Your task to perform on an android device: Clear all items from cart on target. Image 0: 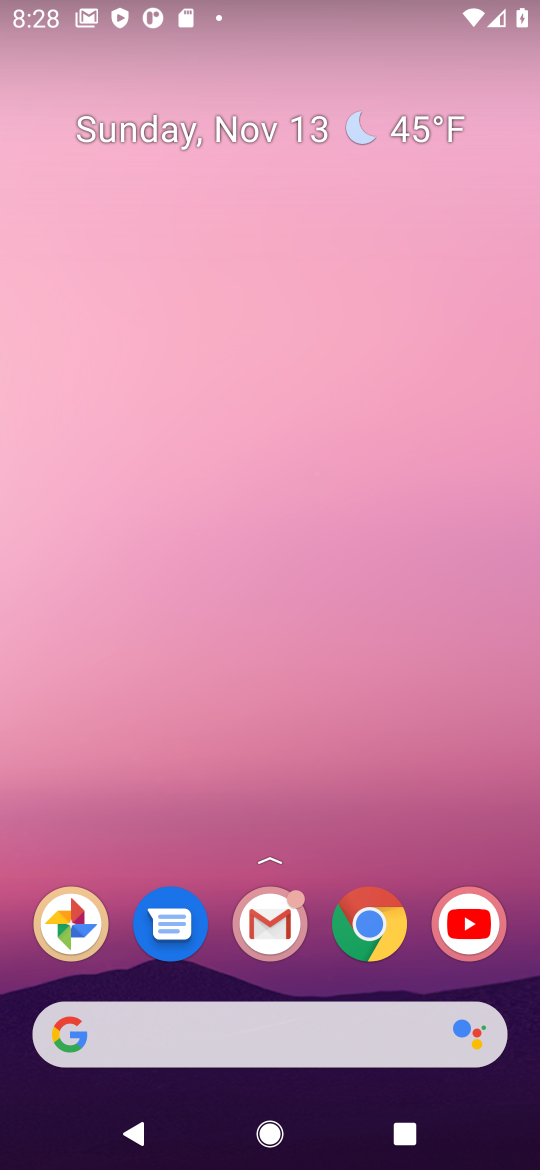
Step 0: click (371, 937)
Your task to perform on an android device: Clear all items from cart on target. Image 1: 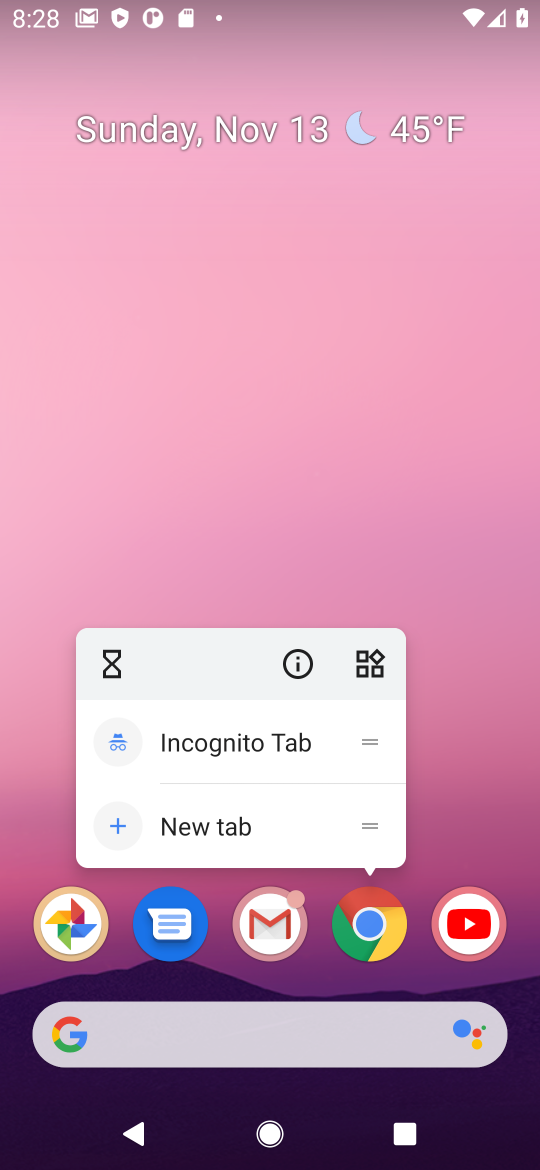
Step 1: click (384, 934)
Your task to perform on an android device: Clear all items from cart on target. Image 2: 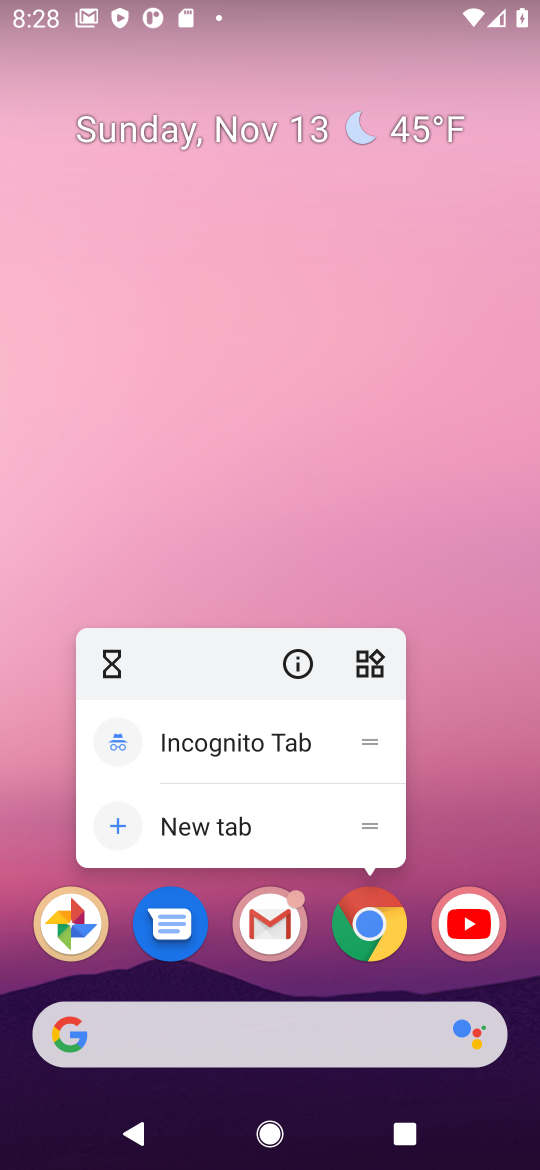
Step 2: click (369, 918)
Your task to perform on an android device: Clear all items from cart on target. Image 3: 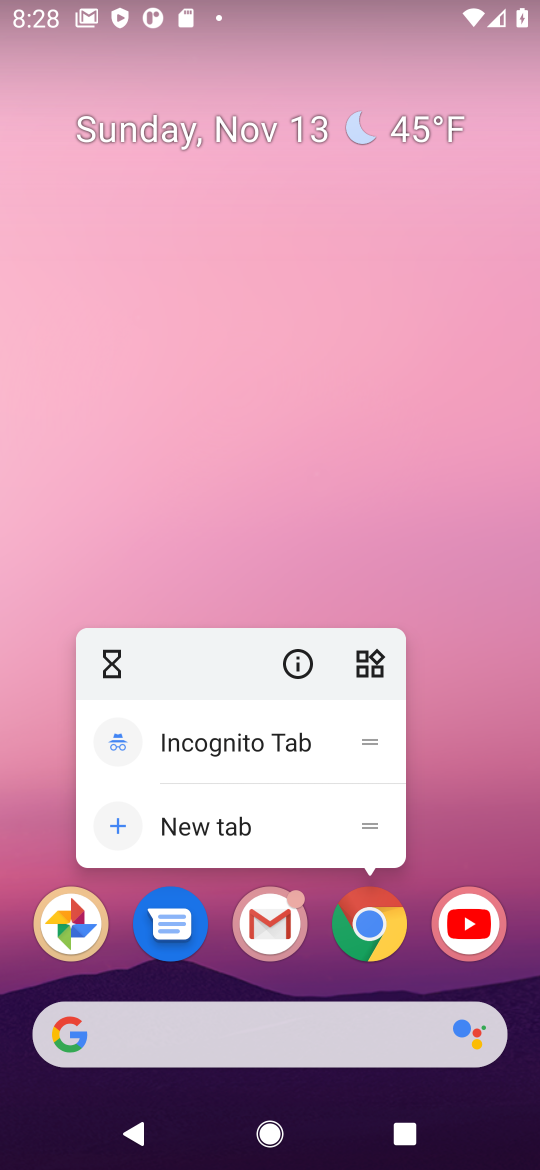
Step 3: click (369, 922)
Your task to perform on an android device: Clear all items from cart on target. Image 4: 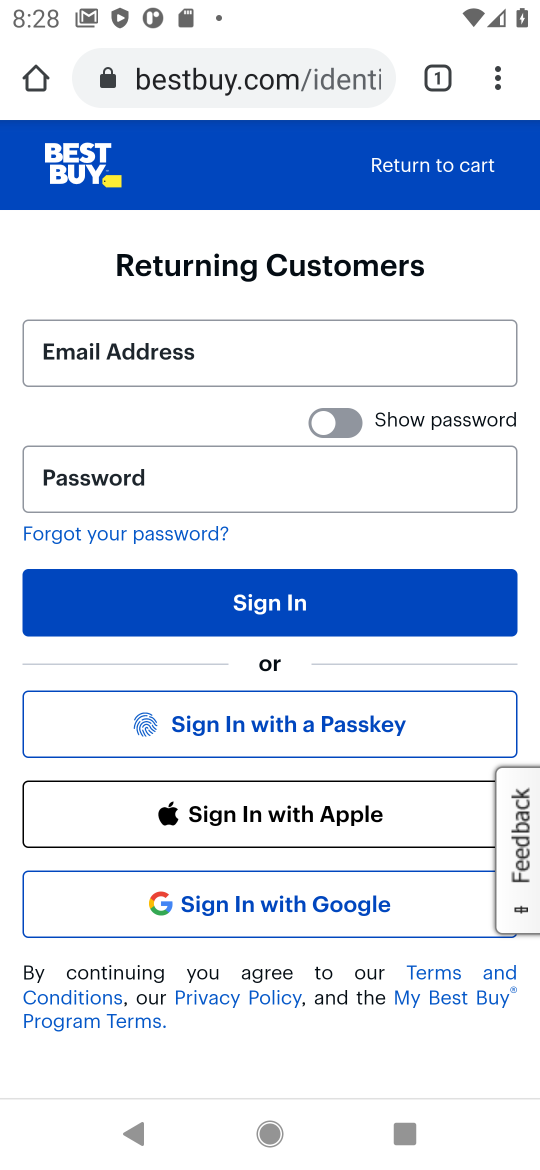
Step 4: click (329, 70)
Your task to perform on an android device: Clear all items from cart on target. Image 5: 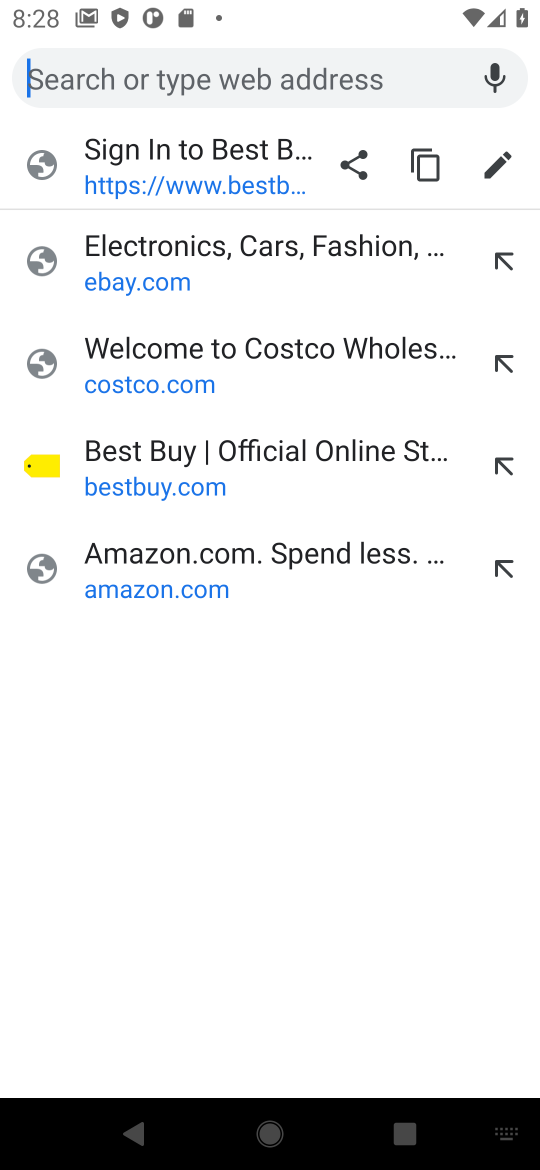
Step 5: type " target"
Your task to perform on an android device: Clear all items from cart on target. Image 6: 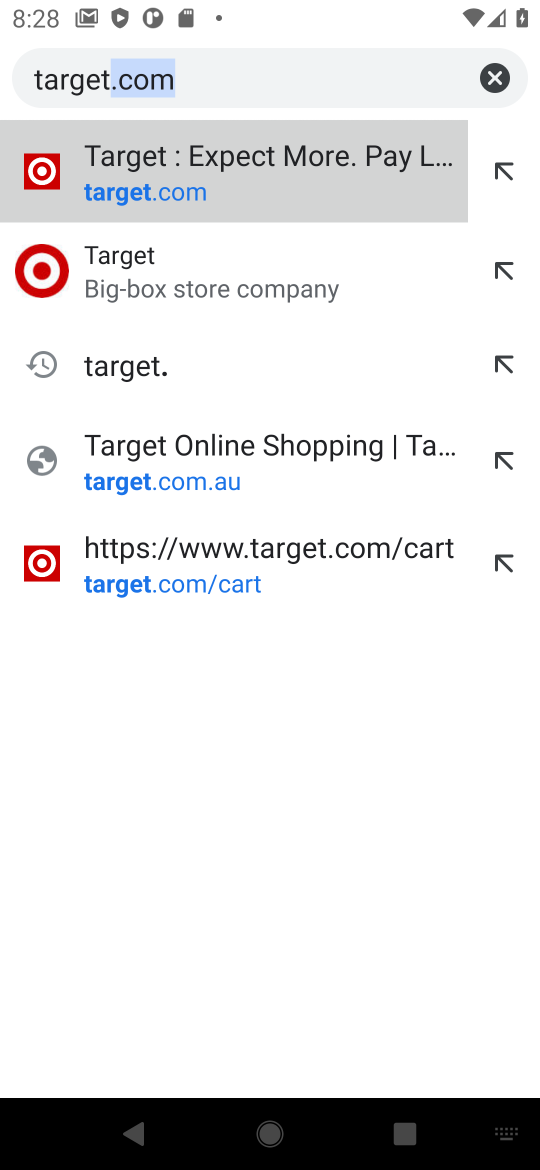
Step 6: press enter
Your task to perform on an android device: Clear all items from cart on target. Image 7: 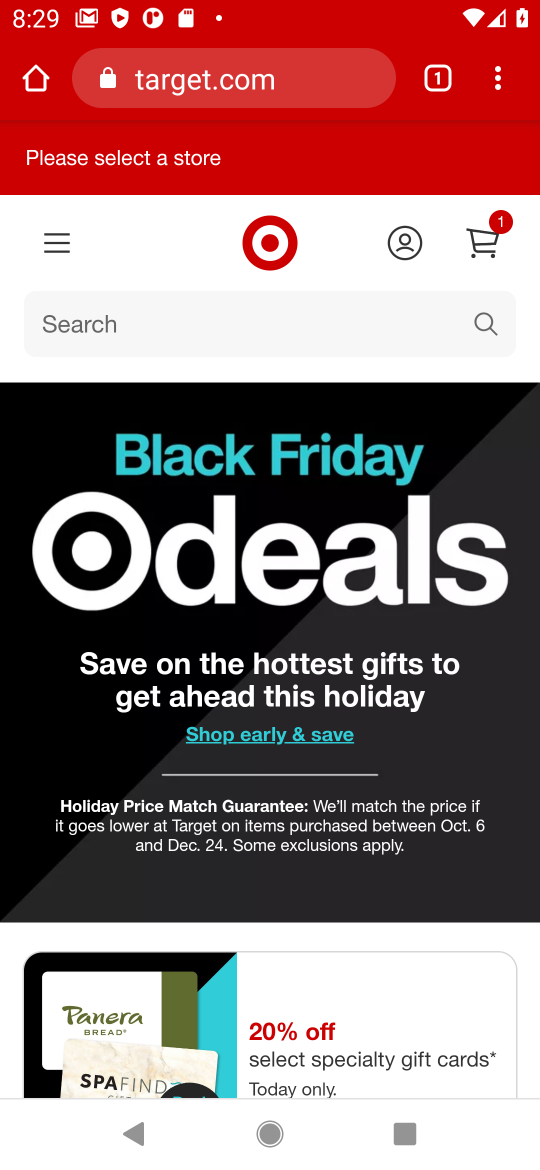
Step 7: click (490, 238)
Your task to perform on an android device: Clear all items from cart on target. Image 8: 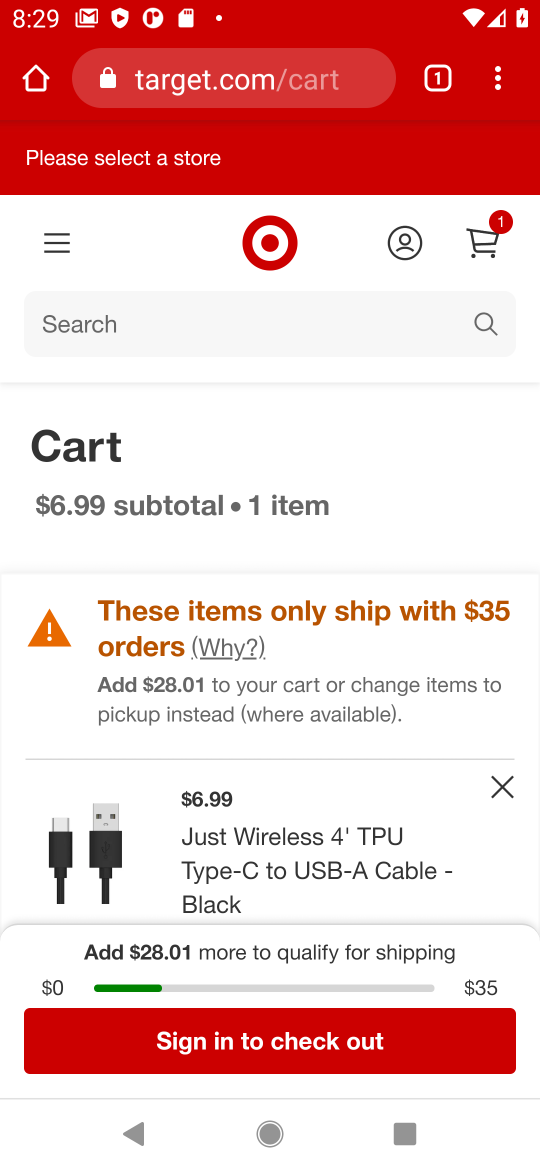
Step 8: click (499, 782)
Your task to perform on an android device: Clear all items from cart on target. Image 9: 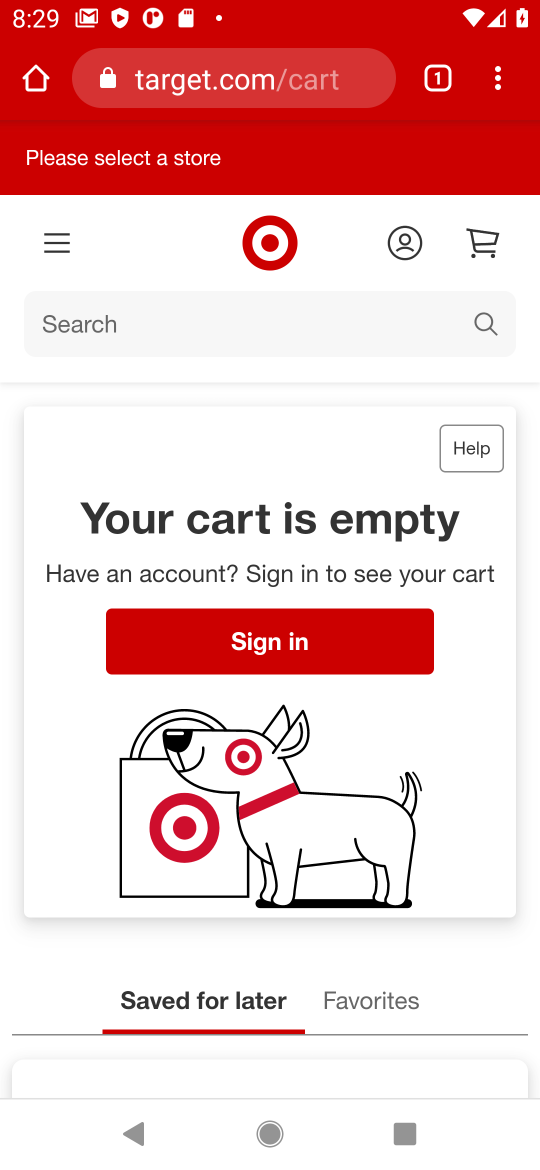
Step 9: task complete